Your task to perform on an android device: Open settings Image 0: 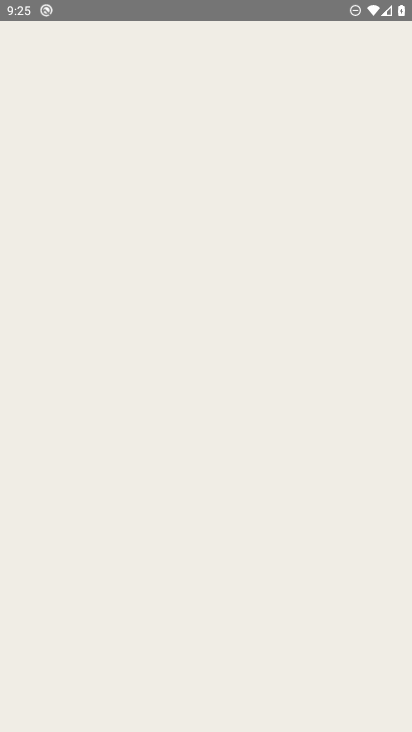
Step 0: drag from (224, 620) to (224, 316)
Your task to perform on an android device: Open settings Image 1: 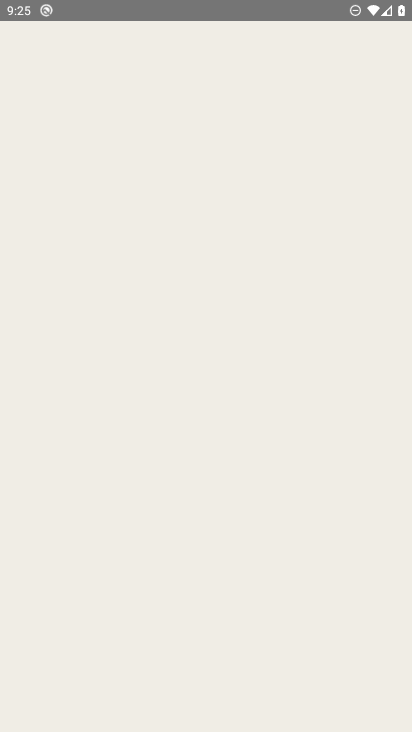
Step 1: press home button
Your task to perform on an android device: Open settings Image 2: 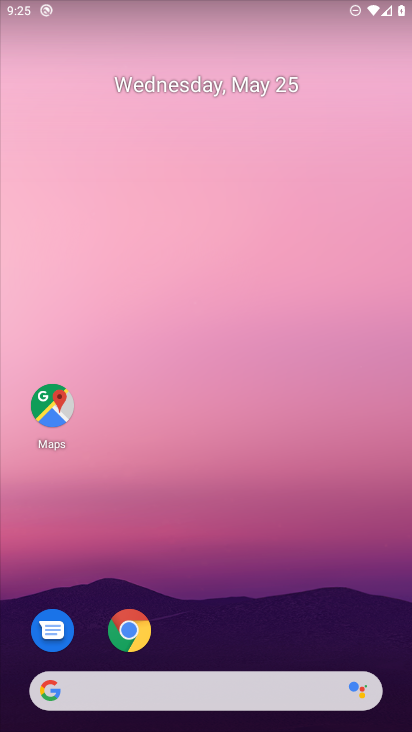
Step 2: drag from (192, 678) to (194, 418)
Your task to perform on an android device: Open settings Image 3: 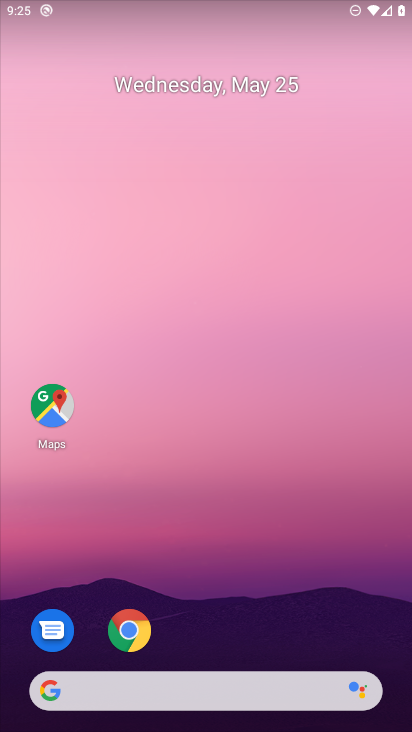
Step 3: drag from (211, 626) to (231, 359)
Your task to perform on an android device: Open settings Image 4: 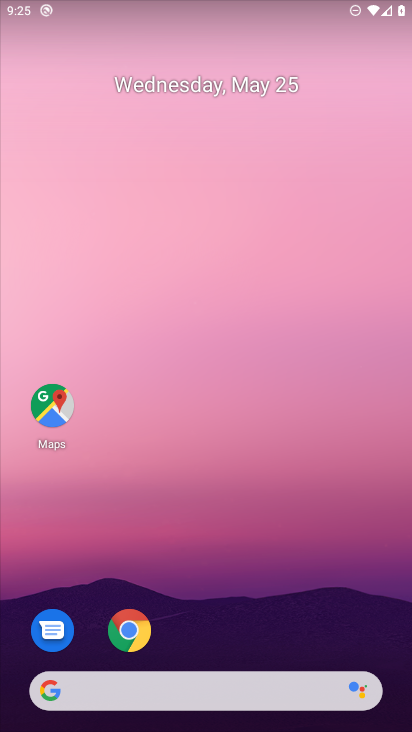
Step 4: drag from (165, 674) to (171, 364)
Your task to perform on an android device: Open settings Image 5: 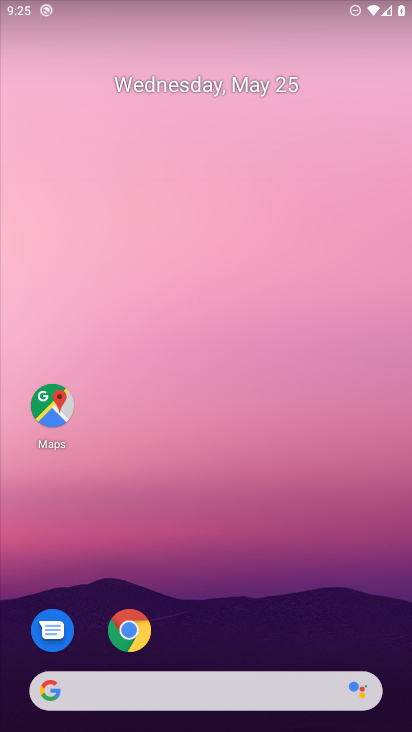
Step 5: drag from (241, 658) to (249, 299)
Your task to perform on an android device: Open settings Image 6: 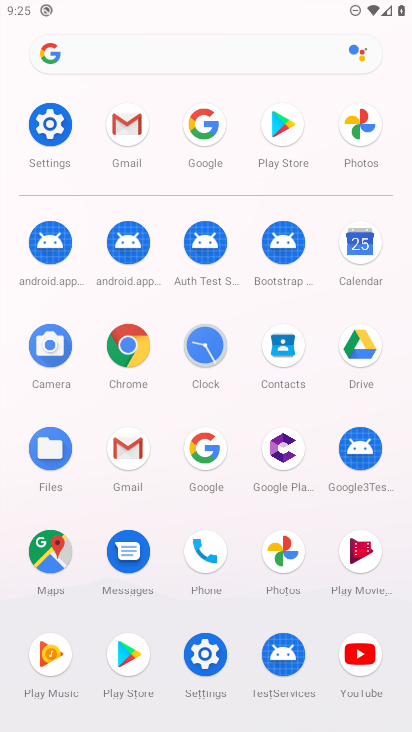
Step 6: click (59, 124)
Your task to perform on an android device: Open settings Image 7: 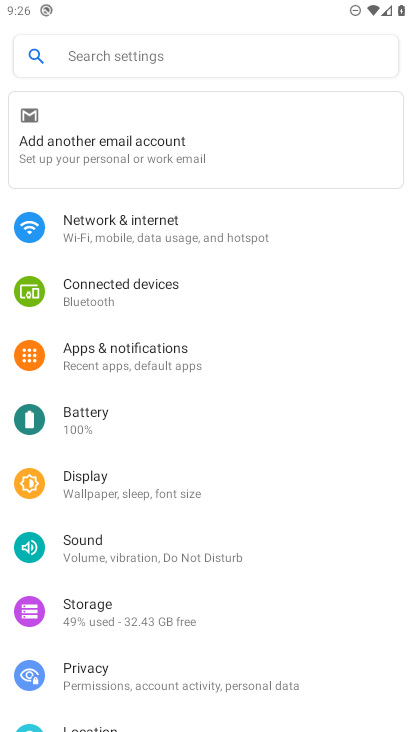
Step 7: task complete